Your task to perform on an android device: check battery use Image 0: 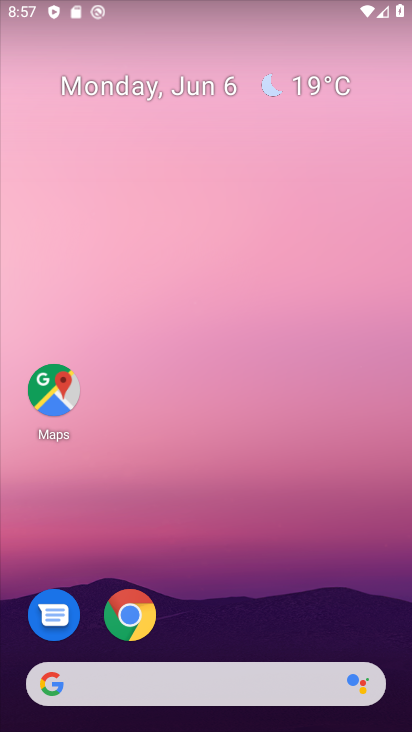
Step 0: drag from (255, 611) to (258, 300)
Your task to perform on an android device: check battery use Image 1: 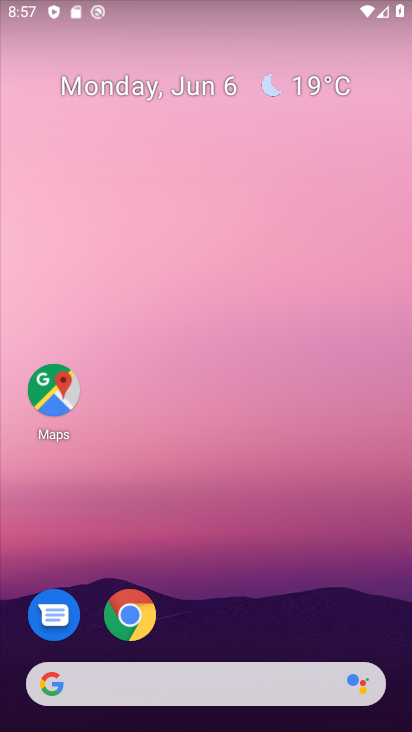
Step 1: click (200, 675)
Your task to perform on an android device: check battery use Image 2: 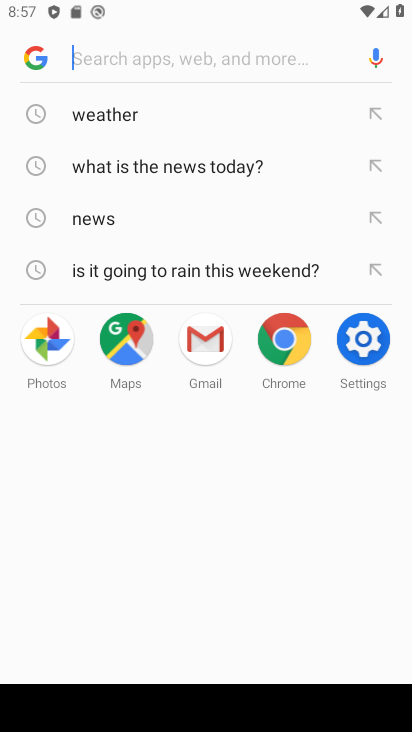
Step 2: press home button
Your task to perform on an android device: check battery use Image 3: 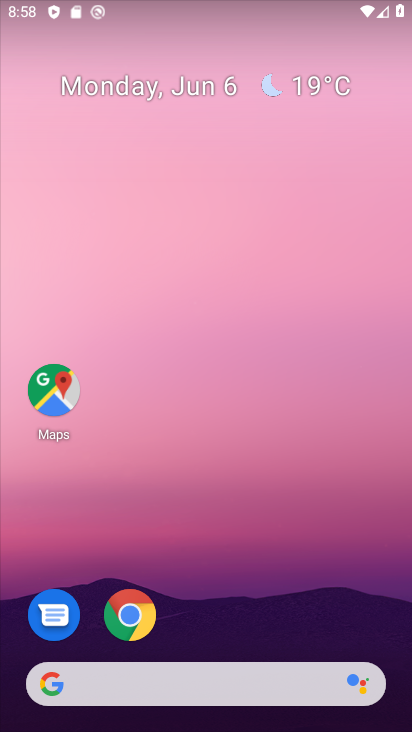
Step 3: drag from (284, 567) to (253, 187)
Your task to perform on an android device: check battery use Image 4: 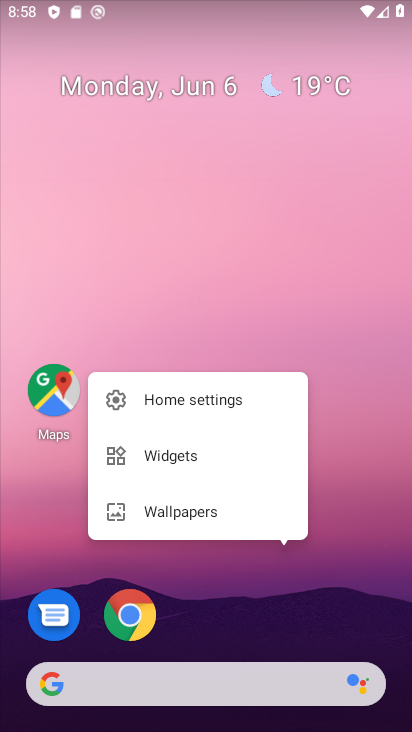
Step 4: click (282, 329)
Your task to perform on an android device: check battery use Image 5: 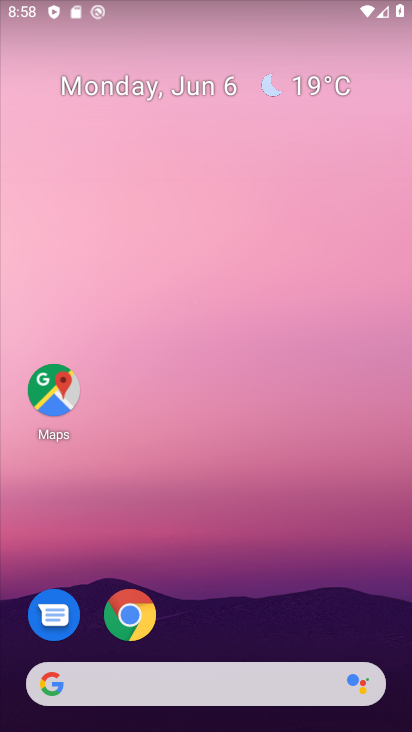
Step 5: drag from (298, 613) to (250, 4)
Your task to perform on an android device: check battery use Image 6: 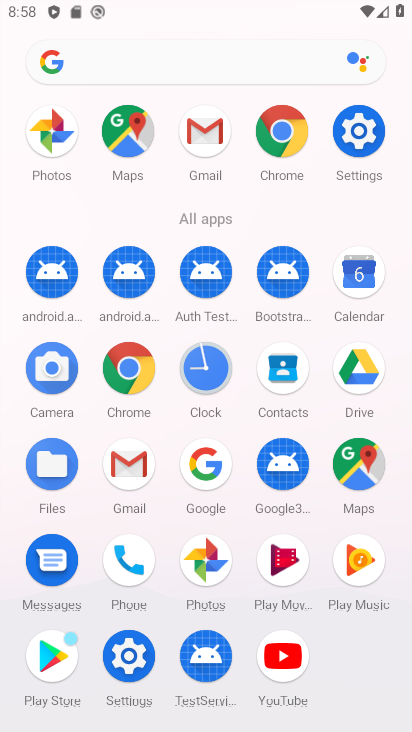
Step 6: click (352, 155)
Your task to perform on an android device: check battery use Image 7: 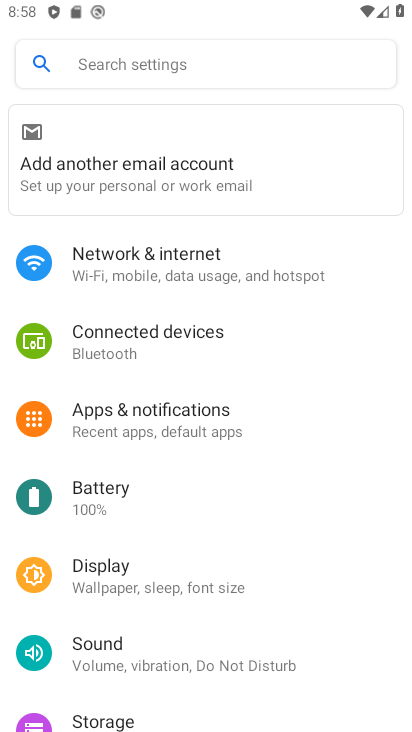
Step 7: click (132, 507)
Your task to perform on an android device: check battery use Image 8: 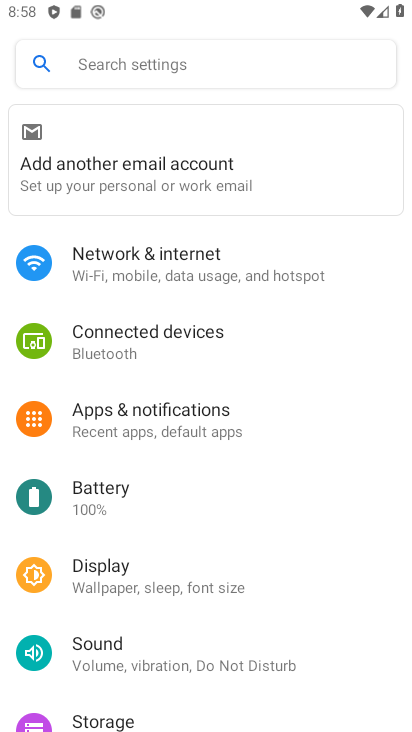
Step 8: task complete